Your task to perform on an android device: Look up the top rated headphones on Amazon. Image 0: 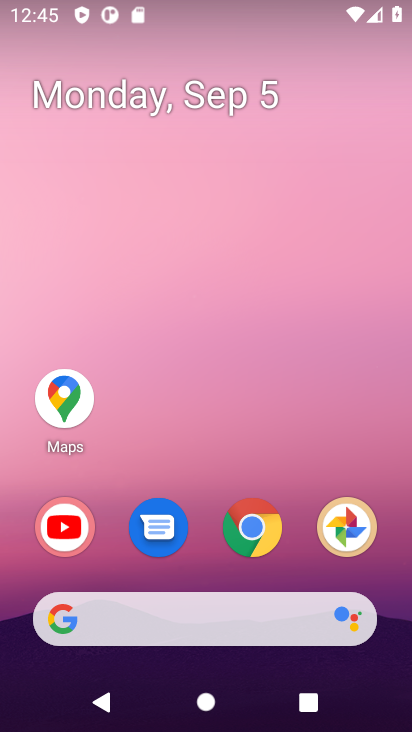
Step 0: drag from (198, 543) to (259, 9)
Your task to perform on an android device: Look up the top rated headphones on Amazon. Image 1: 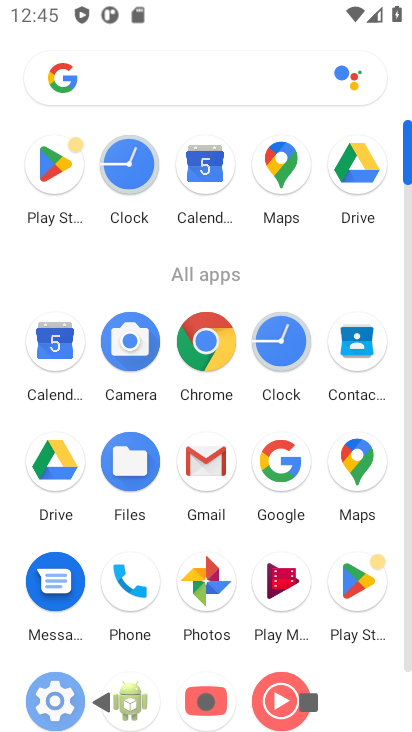
Step 1: click (205, 339)
Your task to perform on an android device: Look up the top rated headphones on Amazon. Image 2: 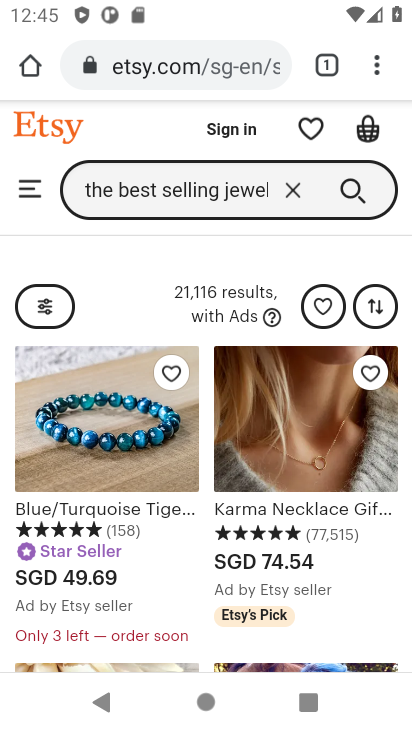
Step 2: click (199, 61)
Your task to perform on an android device: Look up the top rated headphones on Amazon. Image 3: 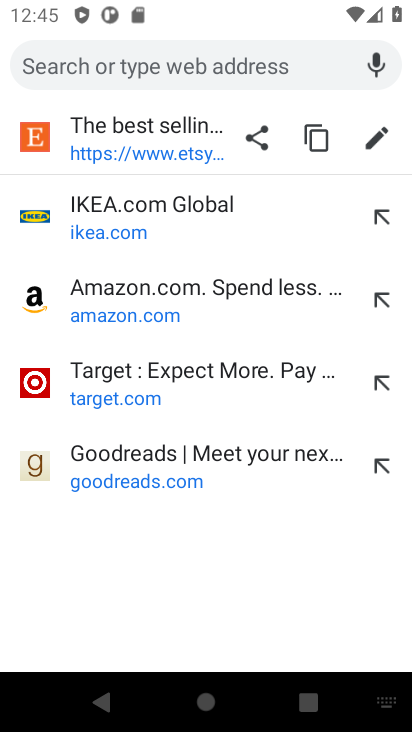
Step 3: type "amazon"
Your task to perform on an android device: Look up the top rated headphones on Amazon. Image 4: 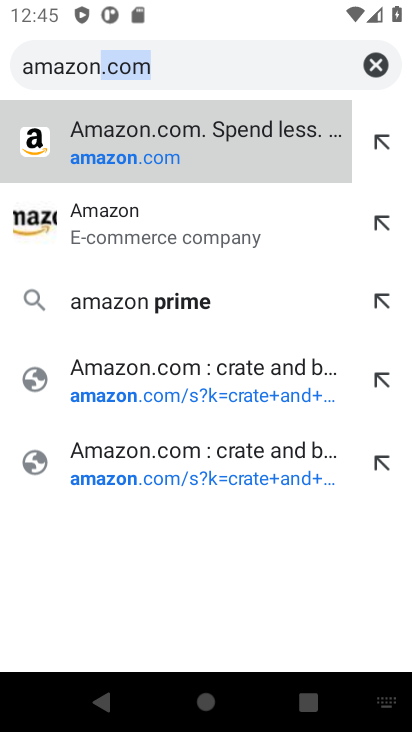
Step 4: click (153, 150)
Your task to perform on an android device: Look up the top rated headphones on Amazon. Image 5: 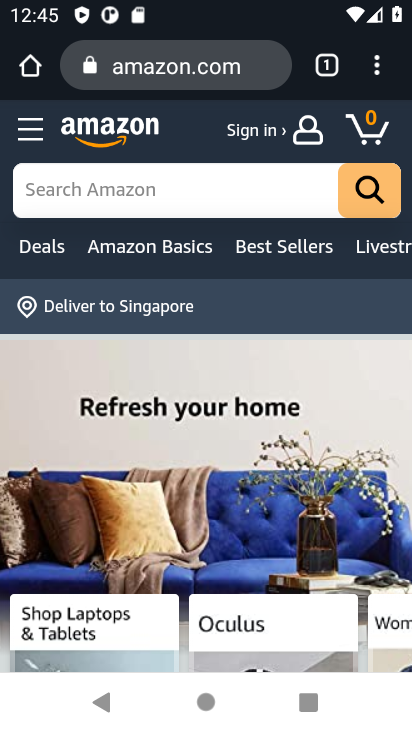
Step 5: click (178, 190)
Your task to perform on an android device: Look up the top rated headphones on Amazon. Image 6: 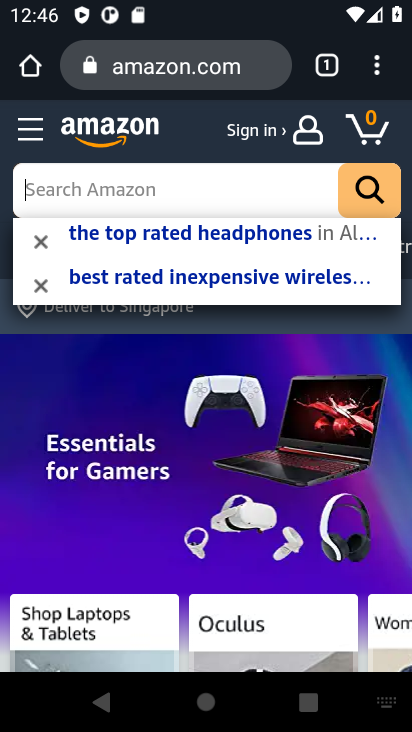
Step 6: type " the top rated headphones"
Your task to perform on an android device: Look up the top rated headphones on Amazon. Image 7: 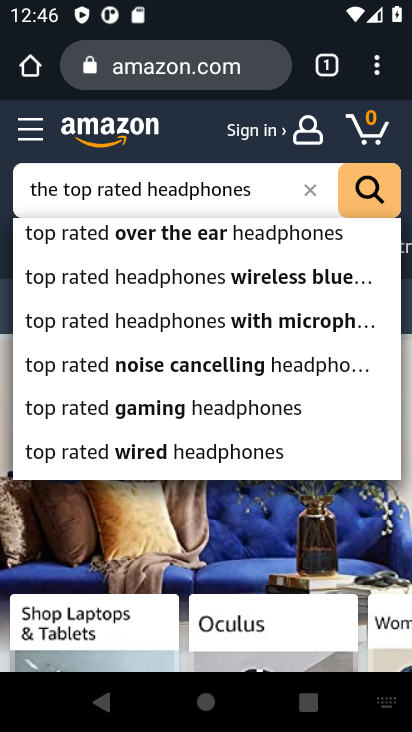
Step 7: click (359, 196)
Your task to perform on an android device: Look up the top rated headphones on Amazon. Image 8: 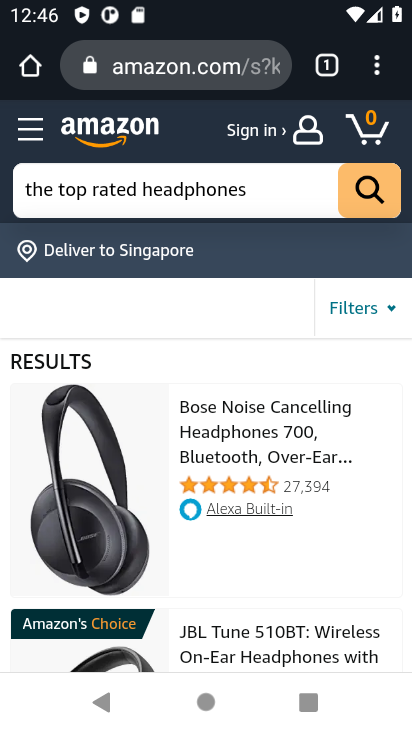
Step 8: task complete